Your task to perform on an android device: Open the Play Movies app and select the watchlist tab. Image 0: 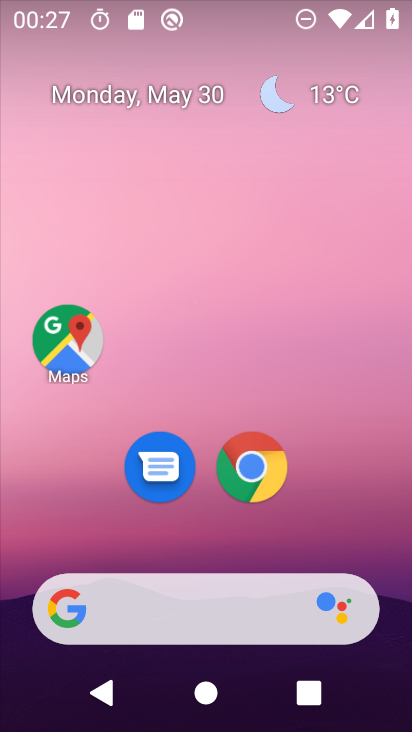
Step 0: drag from (216, 551) to (223, 155)
Your task to perform on an android device: Open the Play Movies app and select the watchlist tab. Image 1: 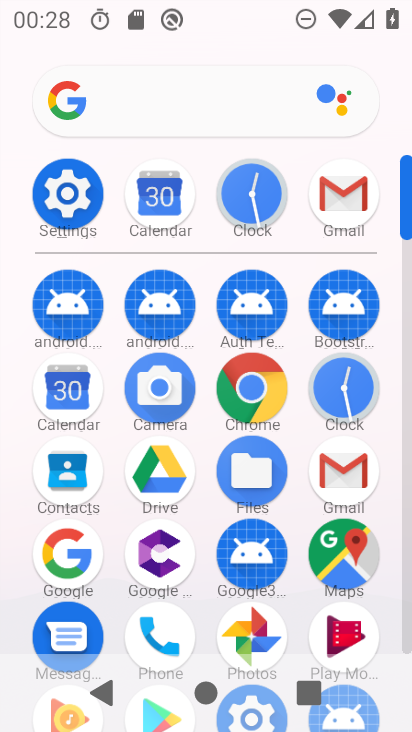
Step 1: drag from (291, 569) to (280, 337)
Your task to perform on an android device: Open the Play Movies app and select the watchlist tab. Image 2: 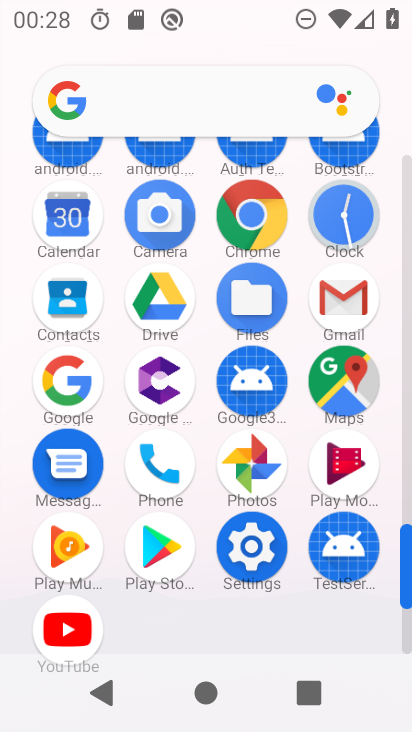
Step 2: click (332, 471)
Your task to perform on an android device: Open the Play Movies app and select the watchlist tab. Image 3: 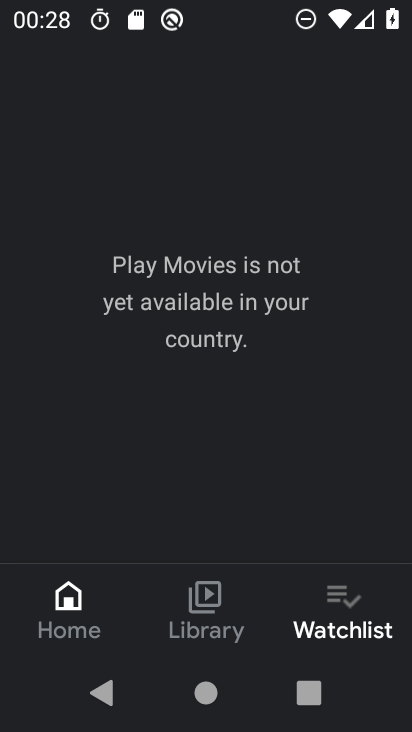
Step 3: task complete